Your task to perform on an android device: View the shopping cart on target. Add dell xps to the cart on target, then select checkout. Image 0: 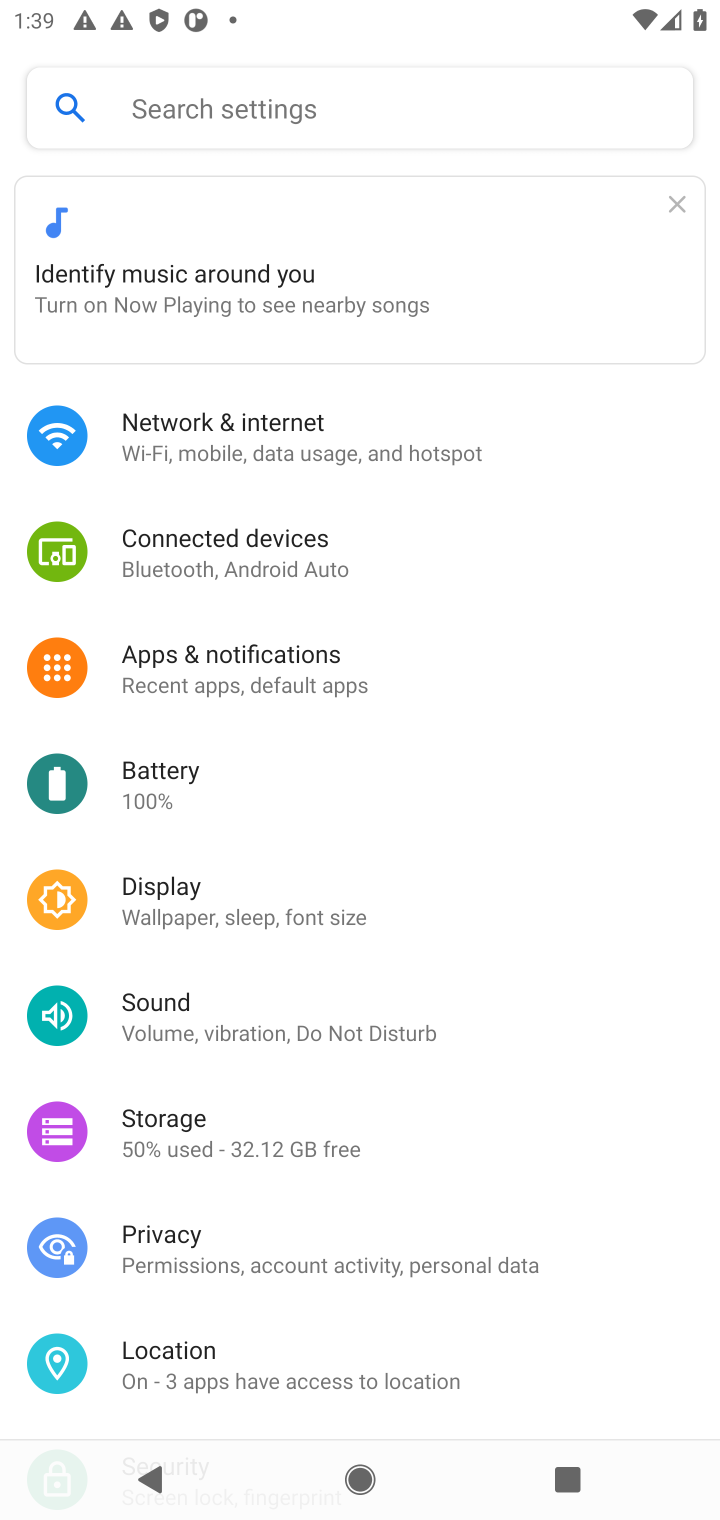
Step 0: press home button
Your task to perform on an android device: View the shopping cart on target. Add dell xps to the cart on target, then select checkout. Image 1: 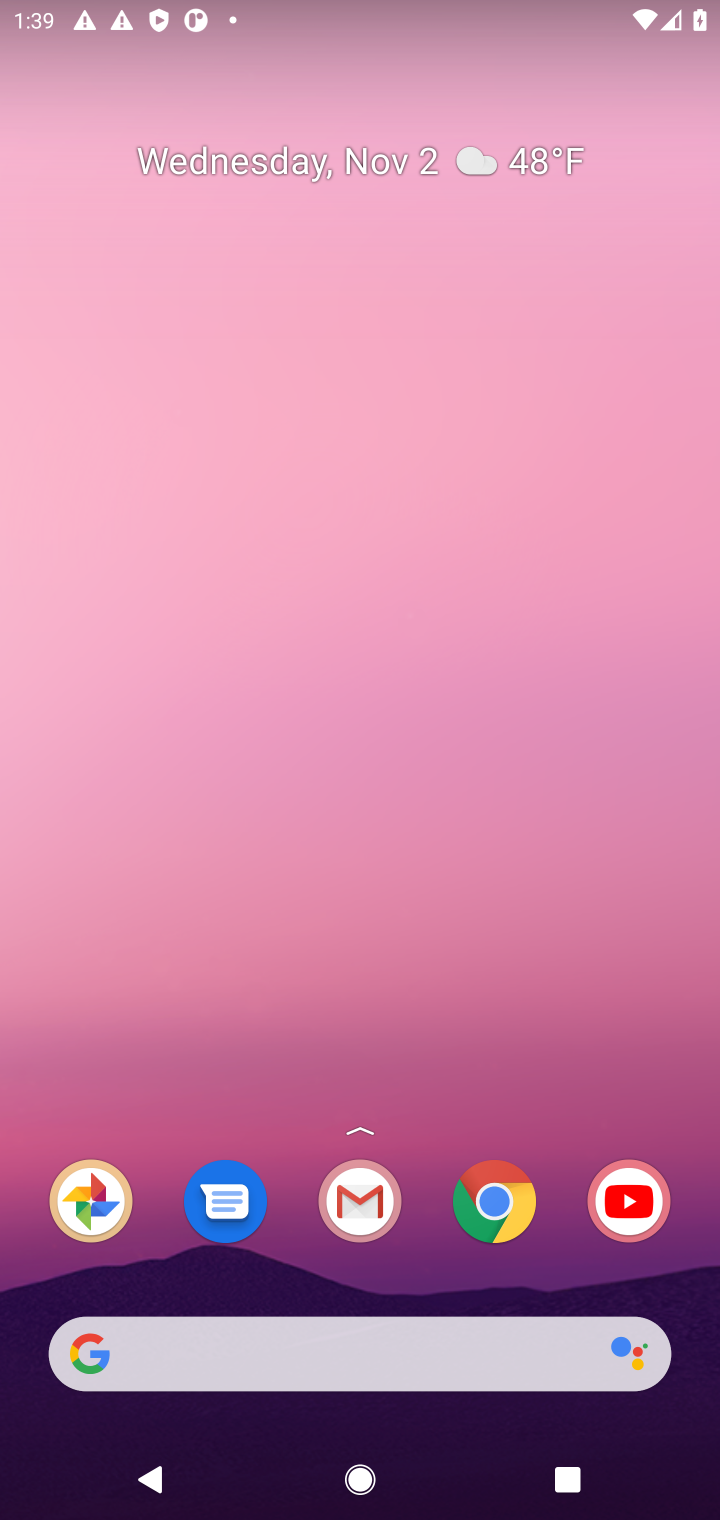
Step 1: click (496, 1197)
Your task to perform on an android device: View the shopping cart on target. Add dell xps to the cart on target, then select checkout. Image 2: 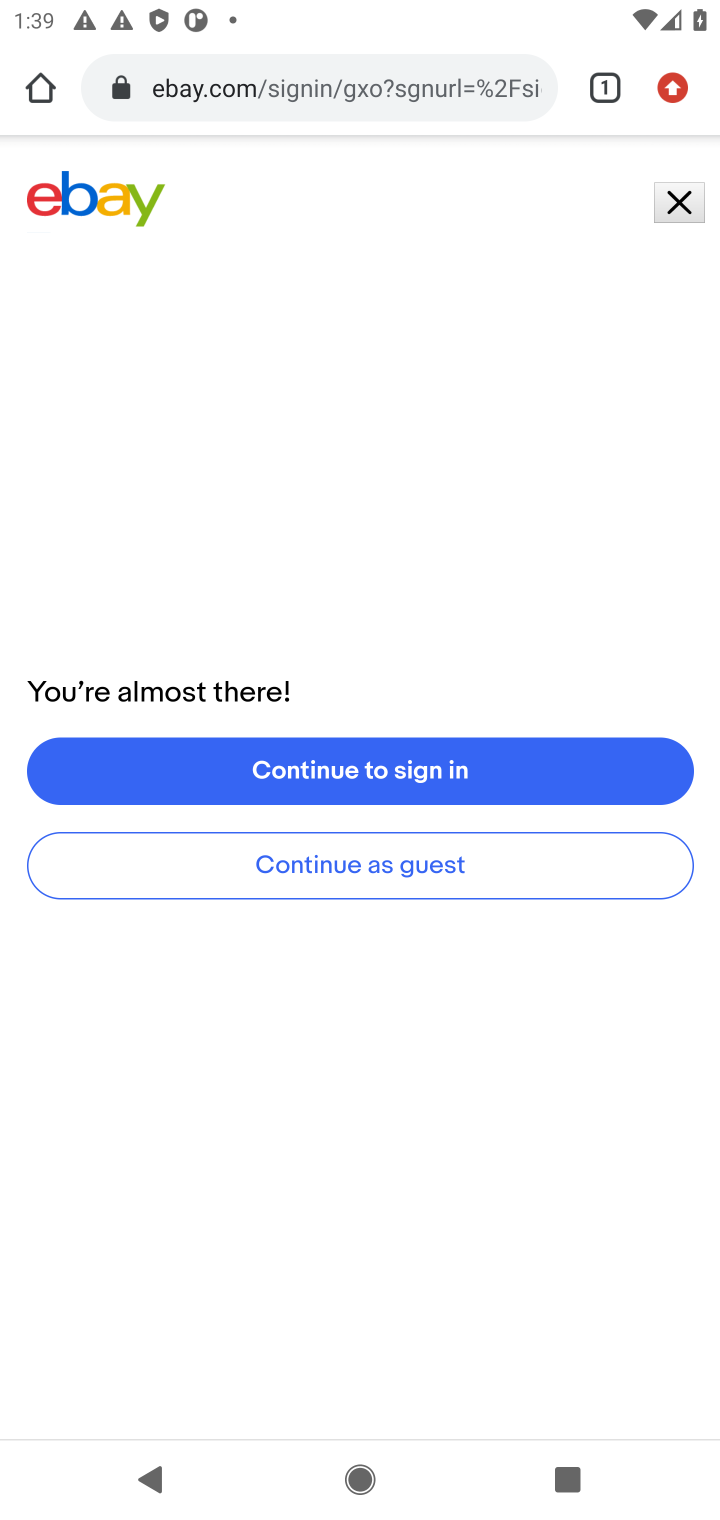
Step 2: click (444, 90)
Your task to perform on an android device: View the shopping cart on target. Add dell xps to the cart on target, then select checkout. Image 3: 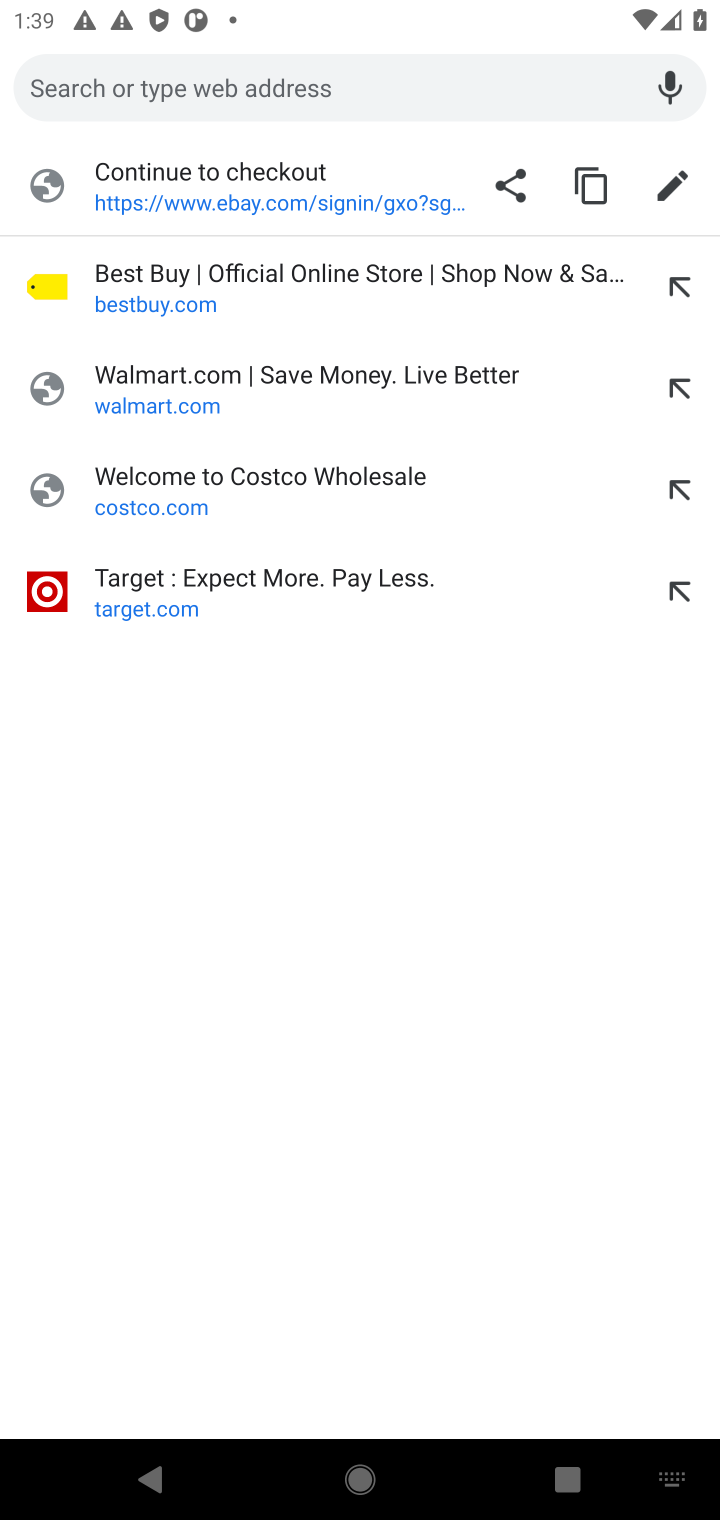
Step 3: click (276, 587)
Your task to perform on an android device: View the shopping cart on target. Add dell xps to the cart on target, then select checkout. Image 4: 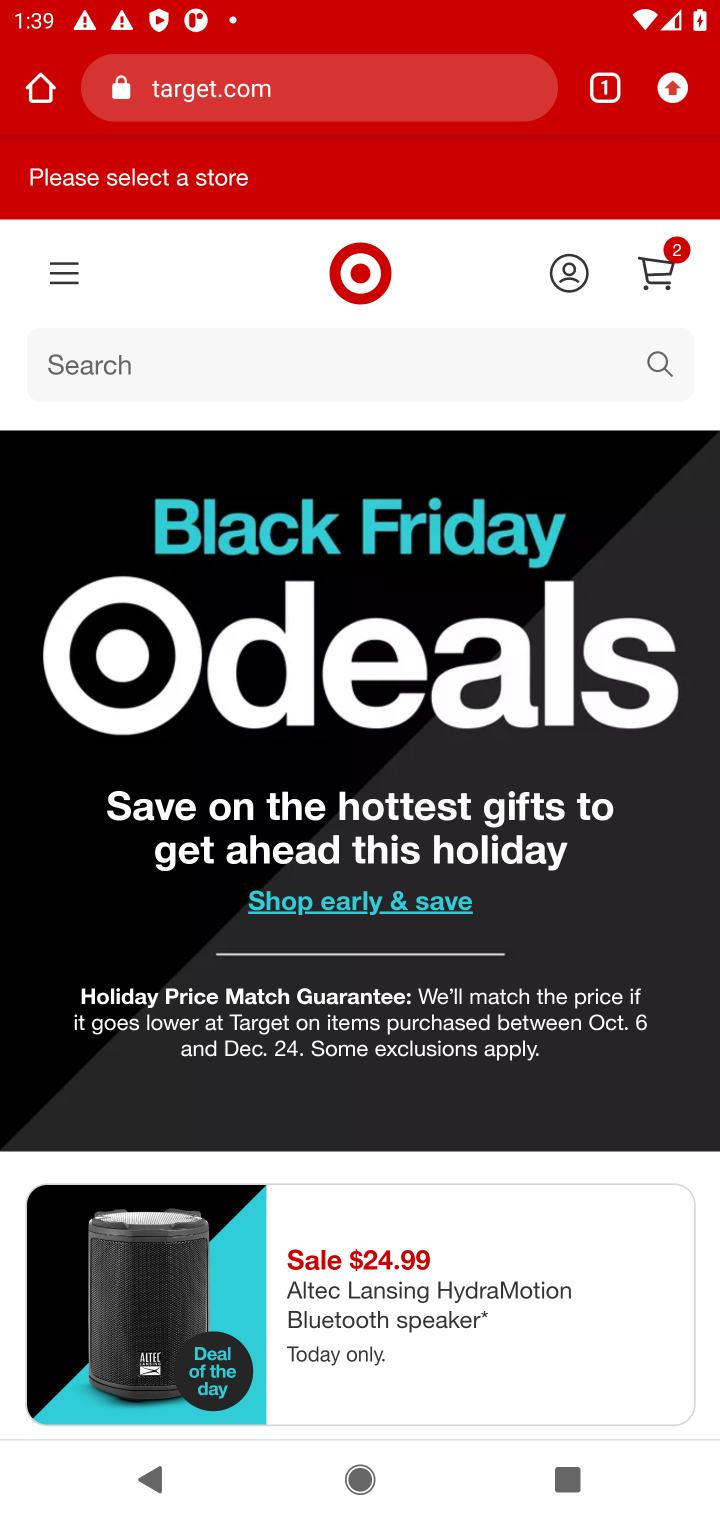
Step 4: click (652, 359)
Your task to perform on an android device: View the shopping cart on target. Add dell xps to the cart on target, then select checkout. Image 5: 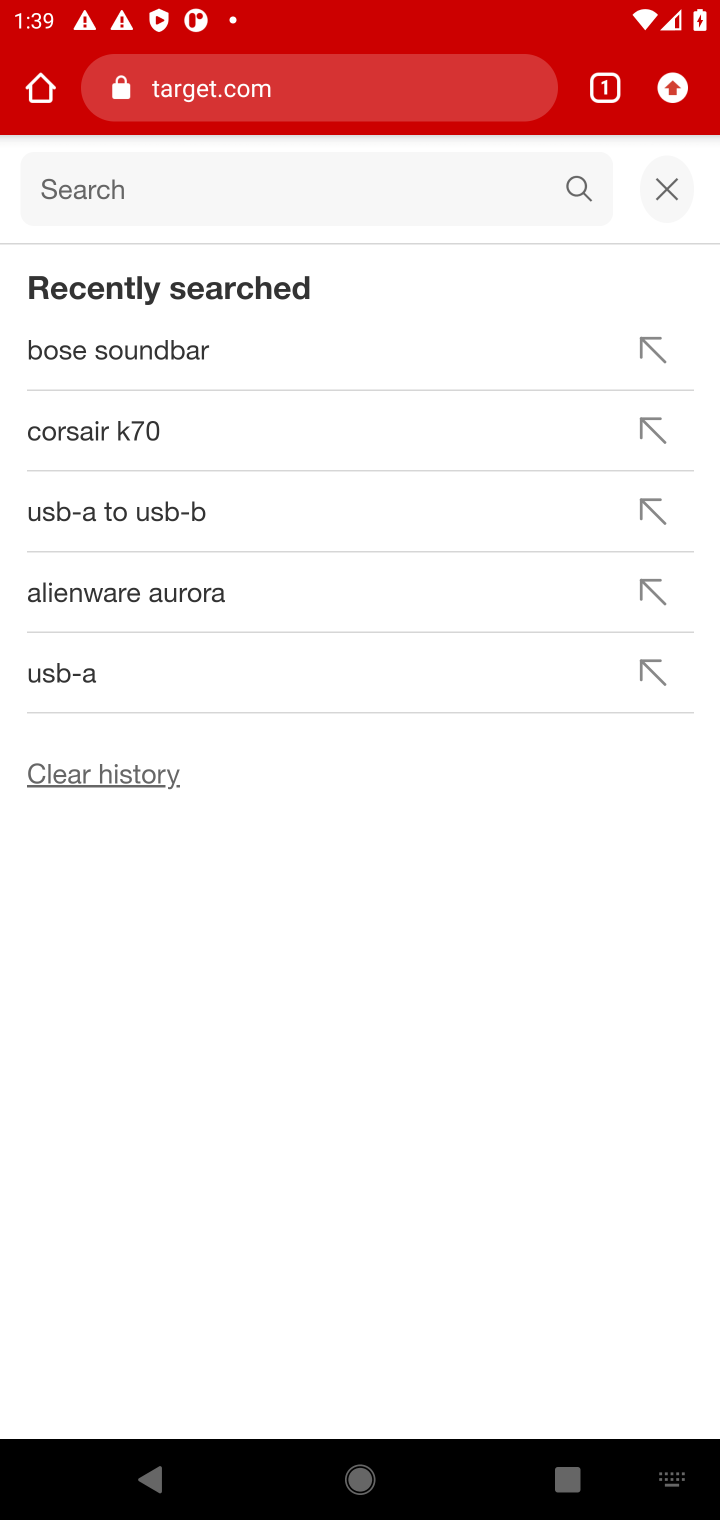
Step 5: type " dell xps"
Your task to perform on an android device: View the shopping cart on target. Add dell xps to the cart on target, then select checkout. Image 6: 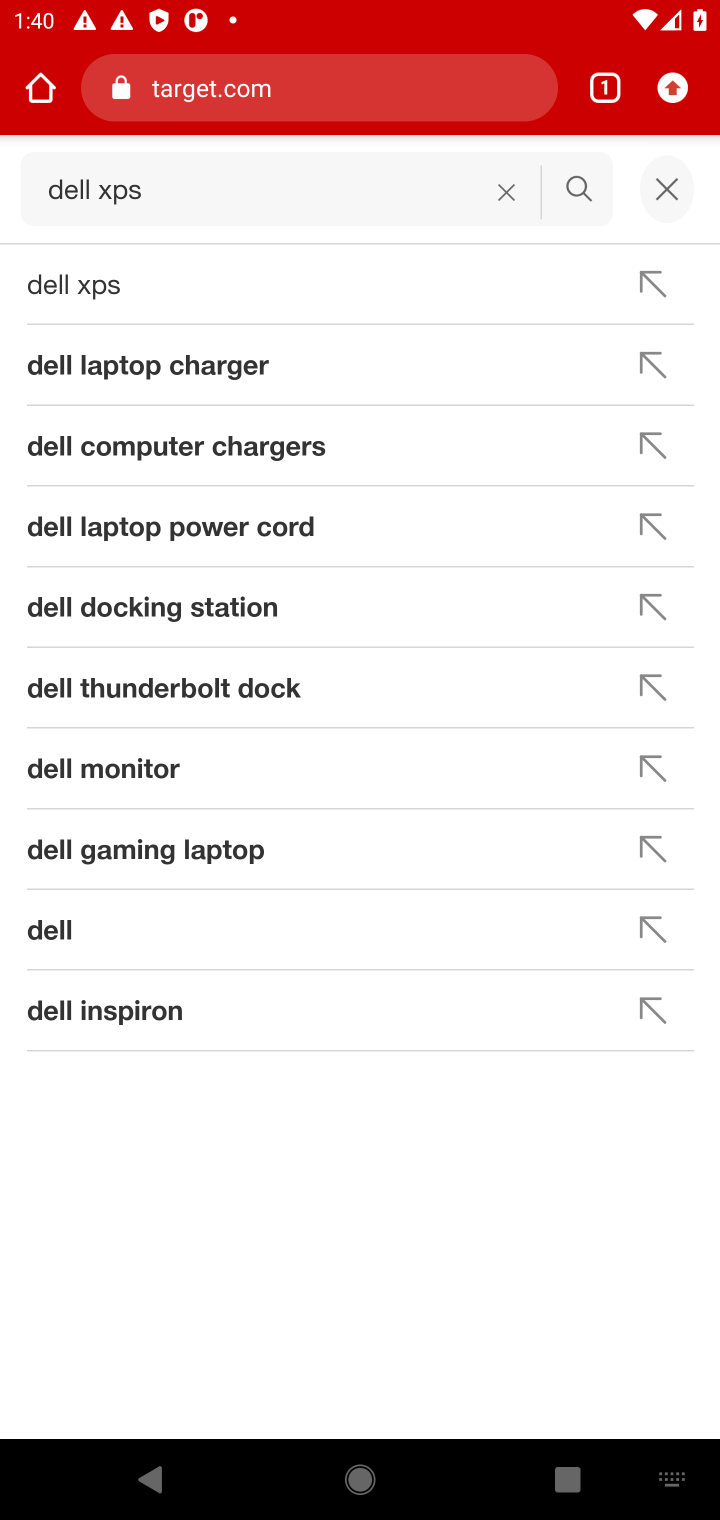
Step 6: click (94, 280)
Your task to perform on an android device: View the shopping cart on target. Add dell xps to the cart on target, then select checkout. Image 7: 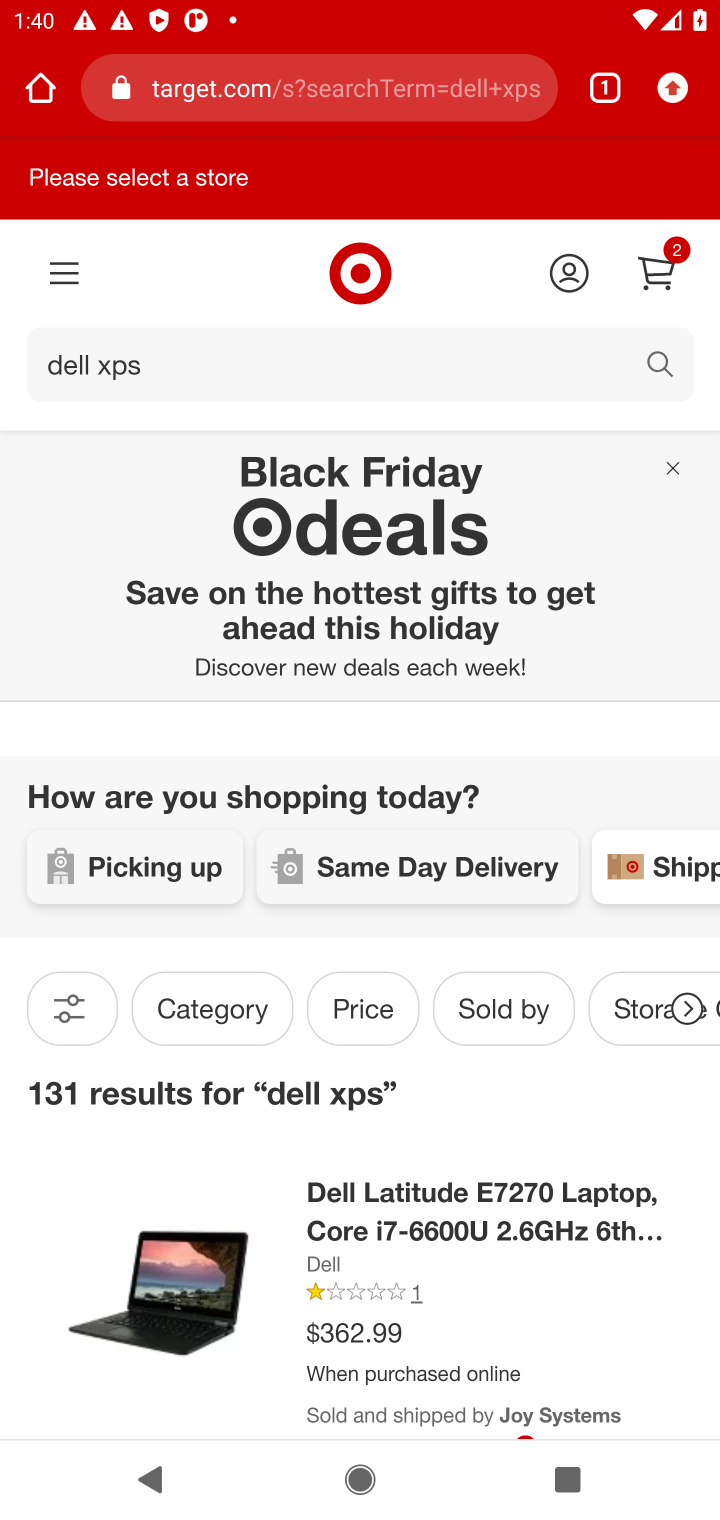
Step 7: drag from (592, 1315) to (614, 889)
Your task to perform on an android device: View the shopping cart on target. Add dell xps to the cart on target, then select checkout. Image 8: 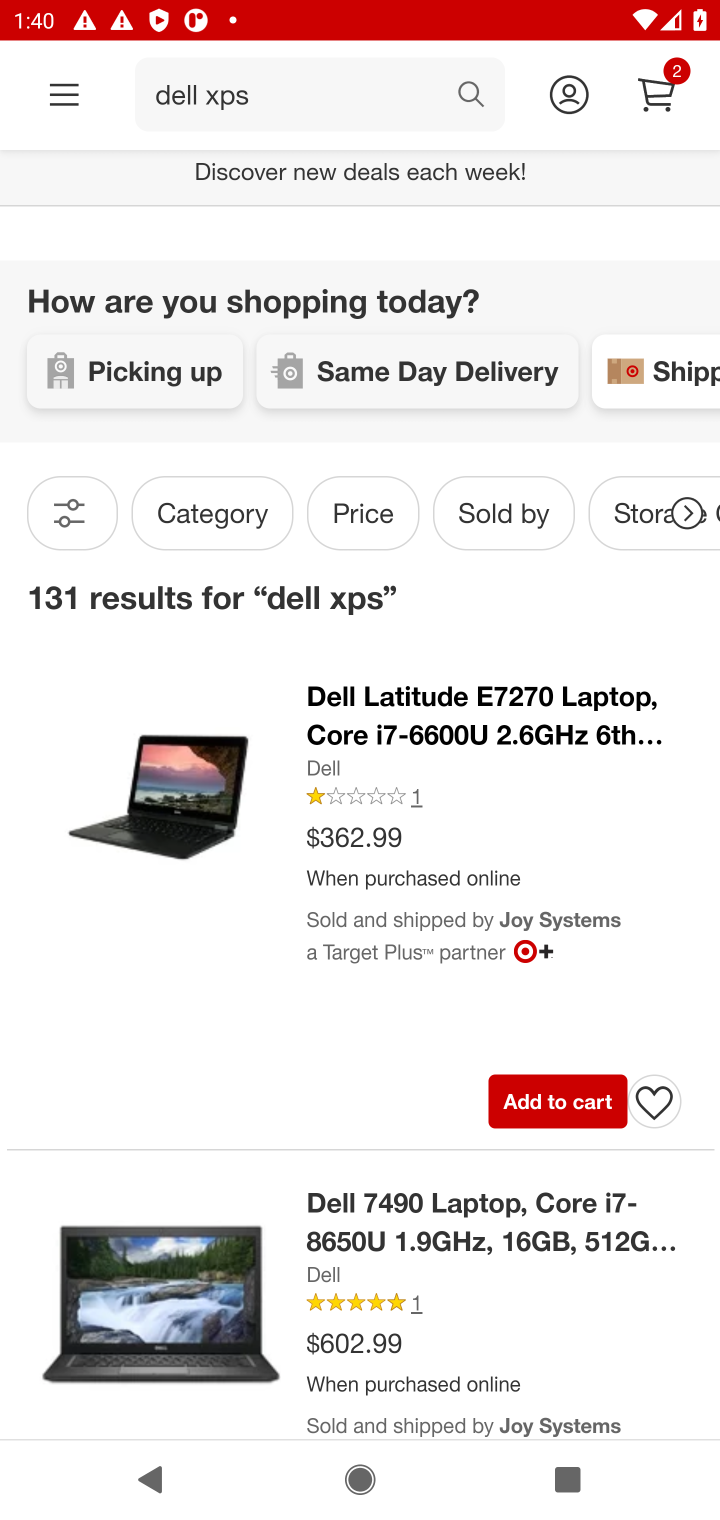
Step 8: drag from (552, 1306) to (567, 925)
Your task to perform on an android device: View the shopping cart on target. Add dell xps to the cart on target, then select checkout. Image 9: 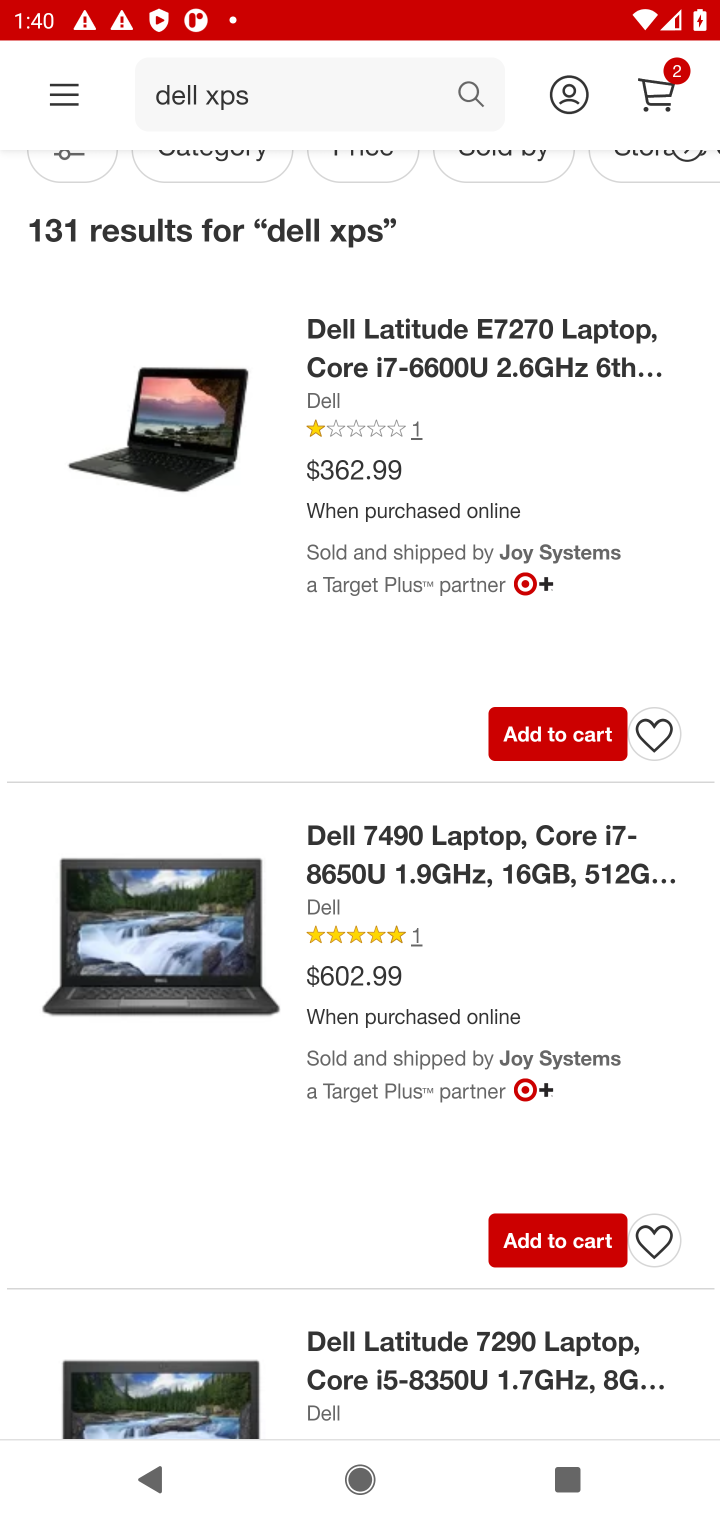
Step 9: drag from (526, 1396) to (577, 974)
Your task to perform on an android device: View the shopping cart on target. Add dell xps to the cart on target, then select checkout. Image 10: 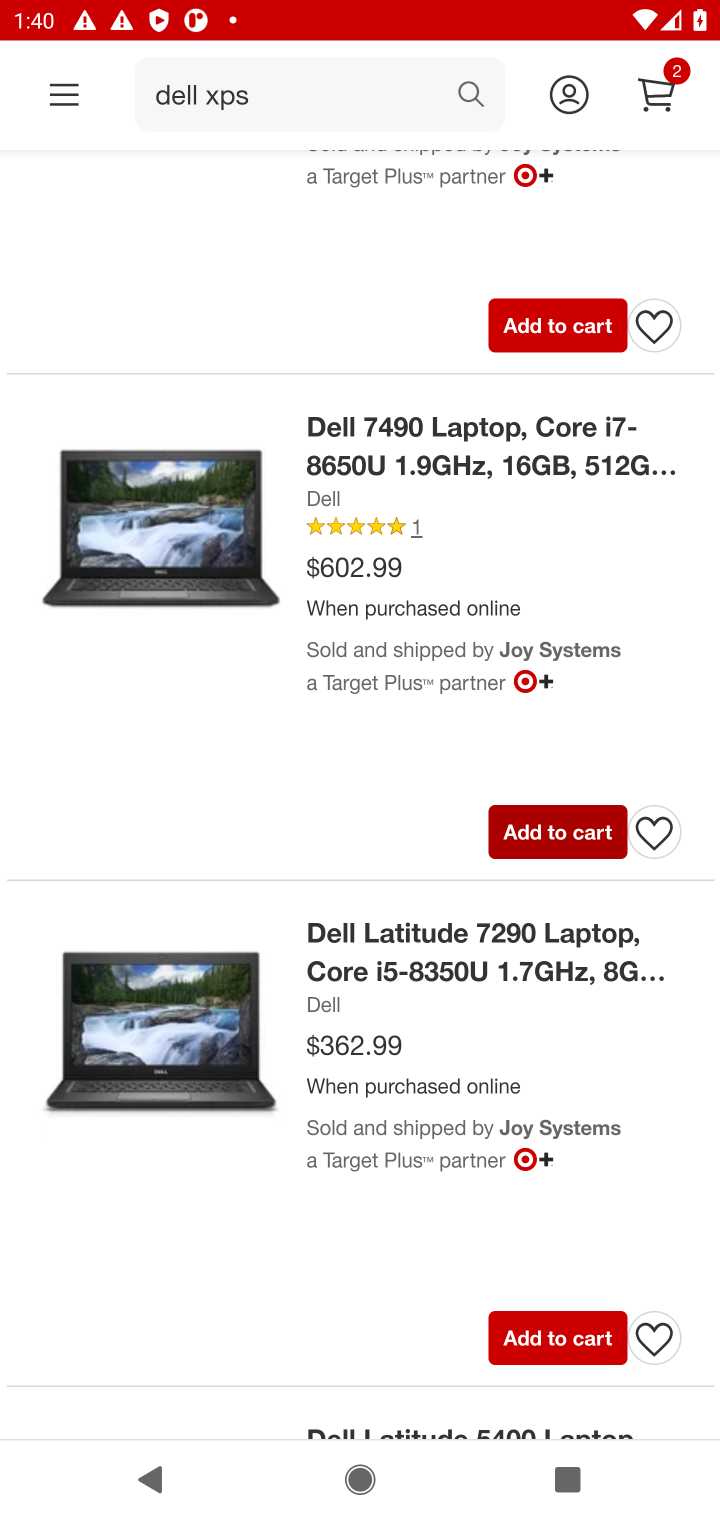
Step 10: drag from (475, 1400) to (504, 885)
Your task to perform on an android device: View the shopping cart on target. Add dell xps to the cart on target, then select checkout. Image 11: 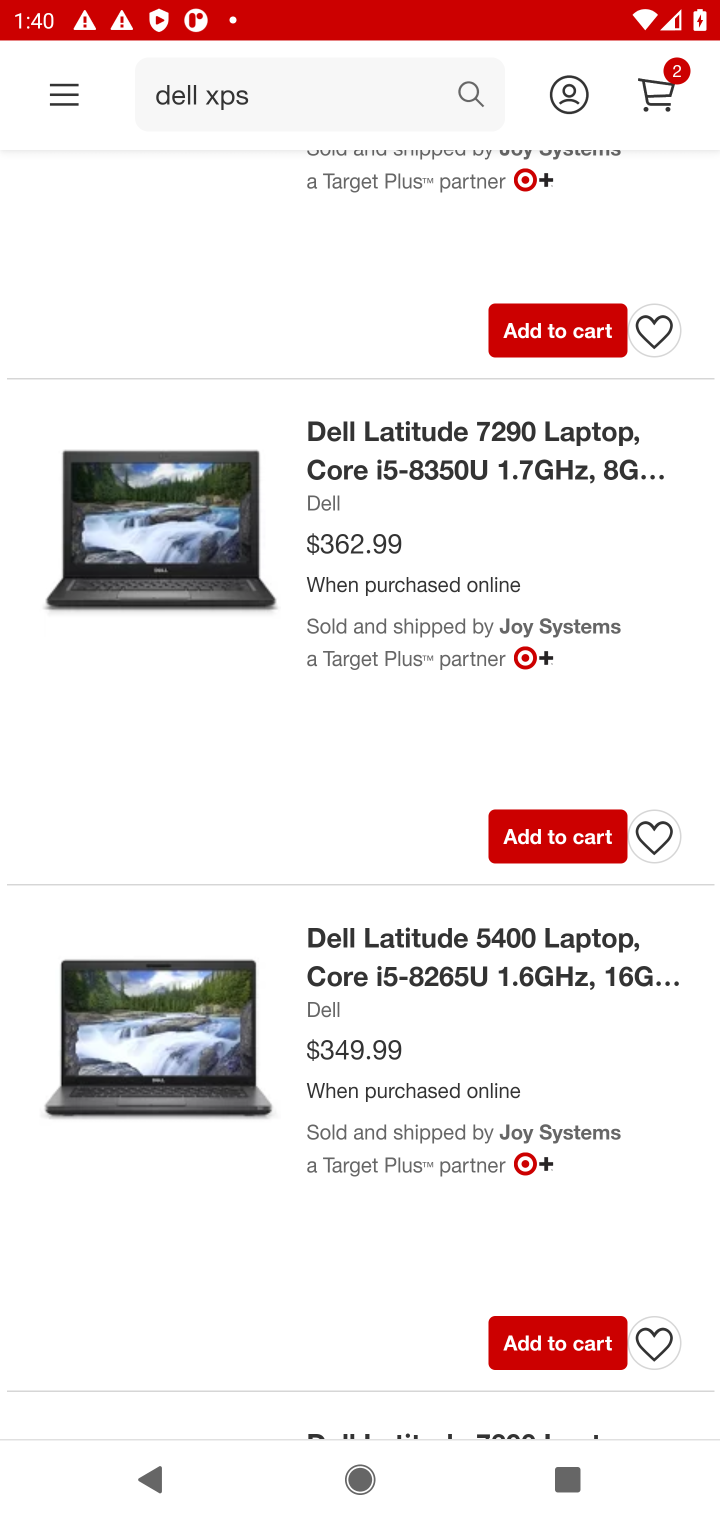
Step 11: drag from (349, 445) to (347, 1082)
Your task to perform on an android device: View the shopping cart on target. Add dell xps to the cart on target, then select checkout. Image 12: 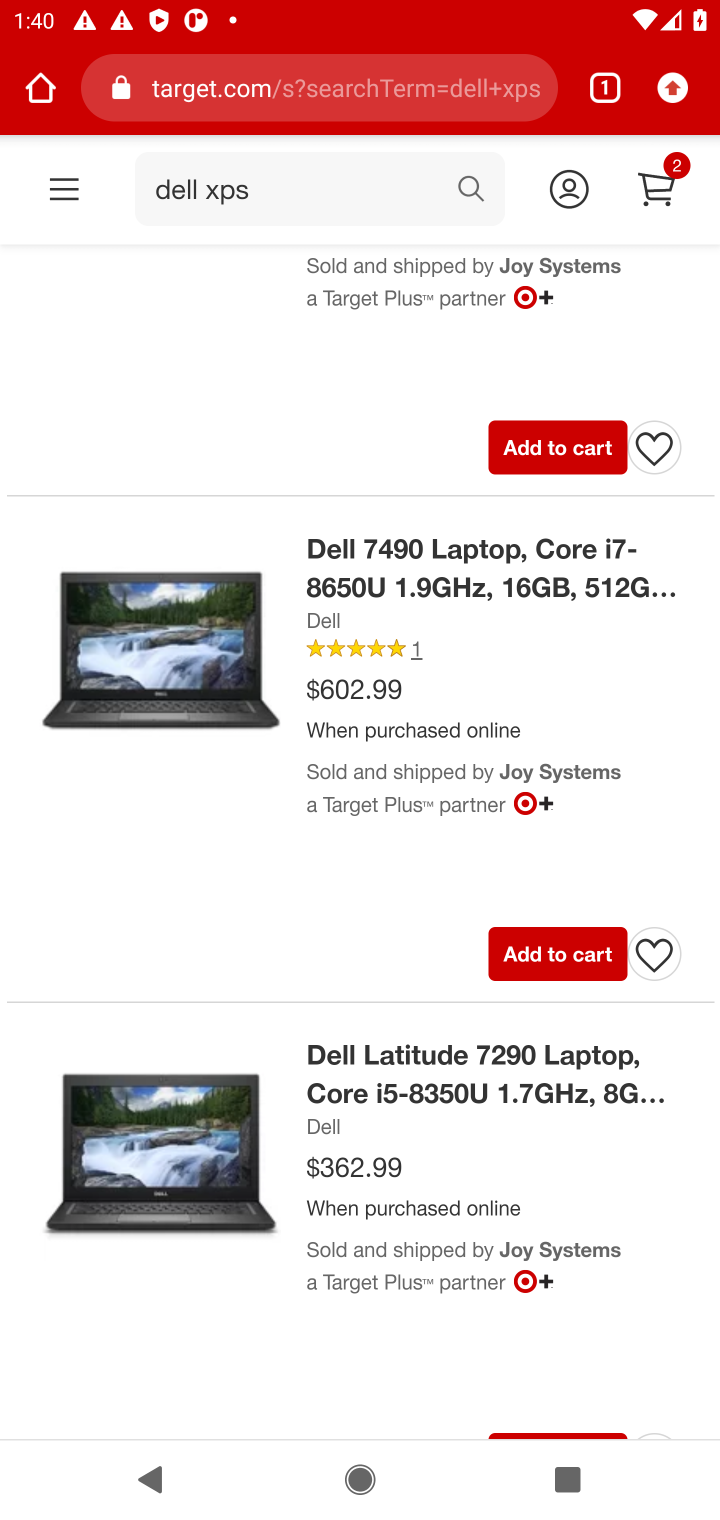
Step 12: drag from (296, 589) to (373, 1115)
Your task to perform on an android device: View the shopping cart on target. Add dell xps to the cart on target, then select checkout. Image 13: 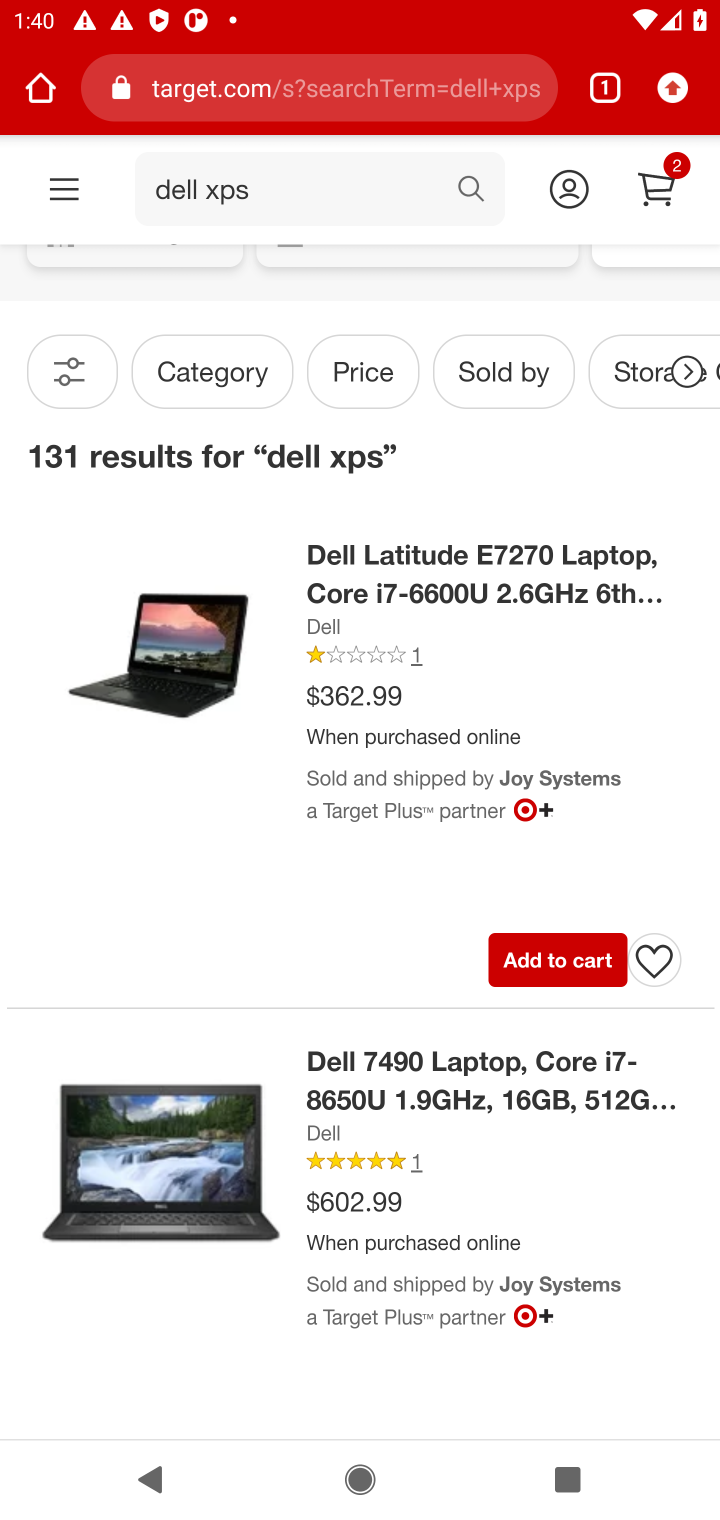
Step 13: click (136, 698)
Your task to perform on an android device: View the shopping cart on target. Add dell xps to the cart on target, then select checkout. Image 14: 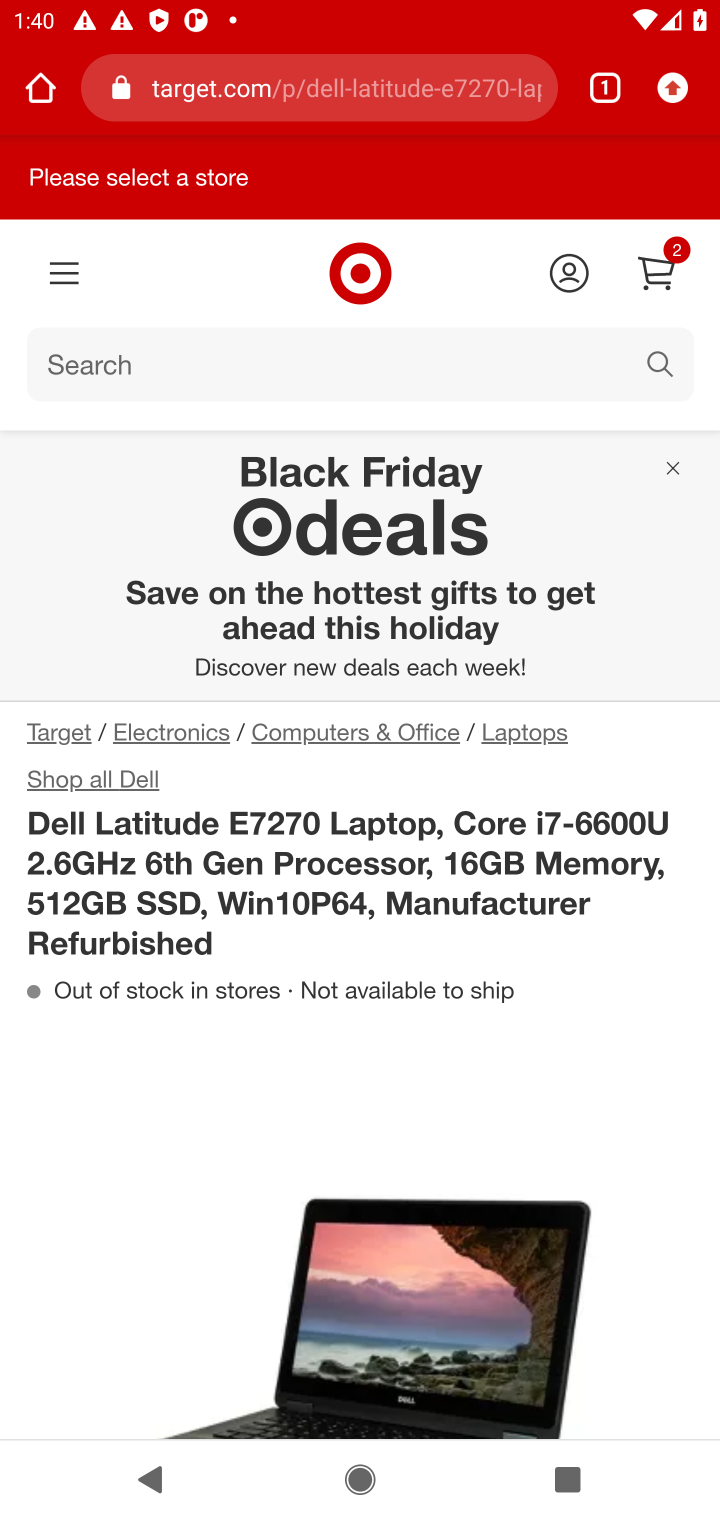
Step 14: drag from (580, 1207) to (547, 468)
Your task to perform on an android device: View the shopping cart on target. Add dell xps to the cart on target, then select checkout. Image 15: 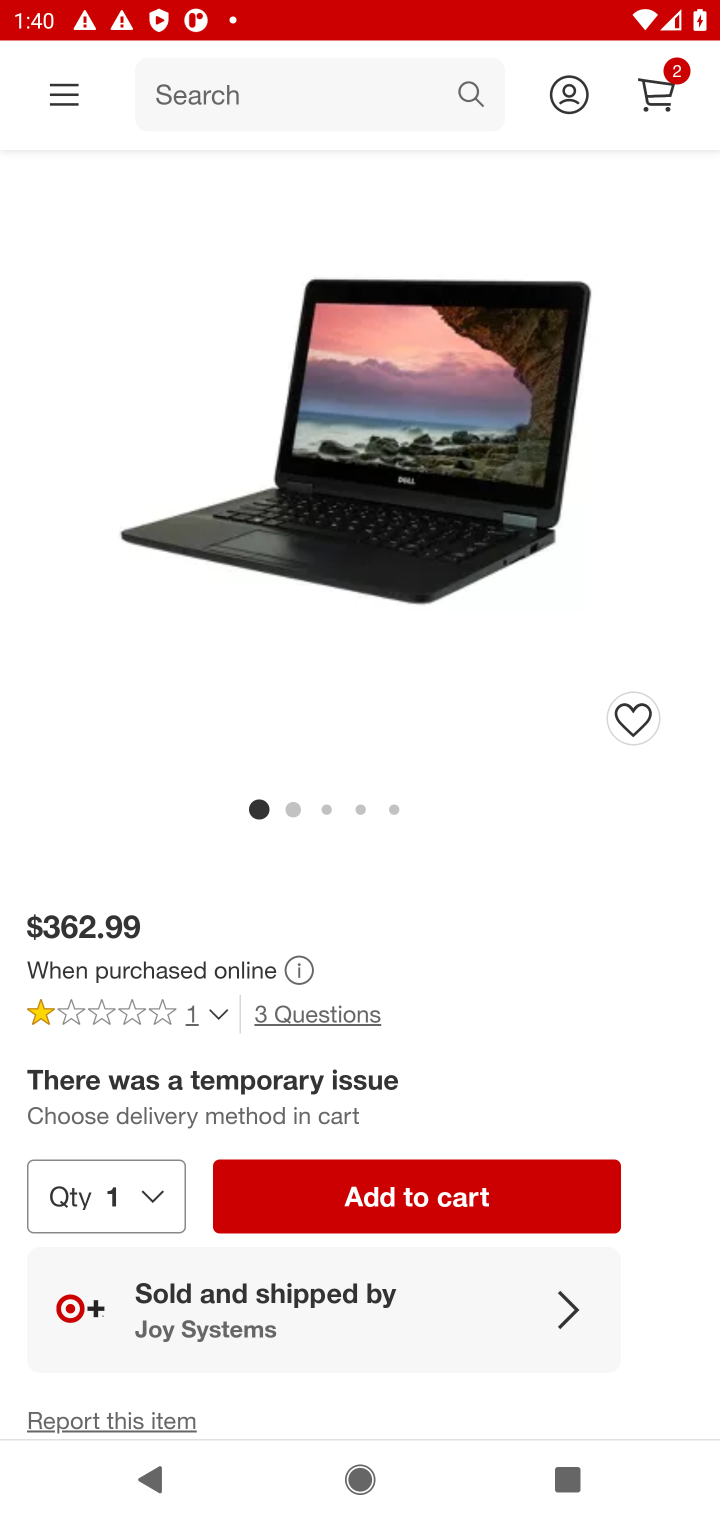
Step 15: click (454, 1199)
Your task to perform on an android device: View the shopping cart on target. Add dell xps to the cart on target, then select checkout. Image 16: 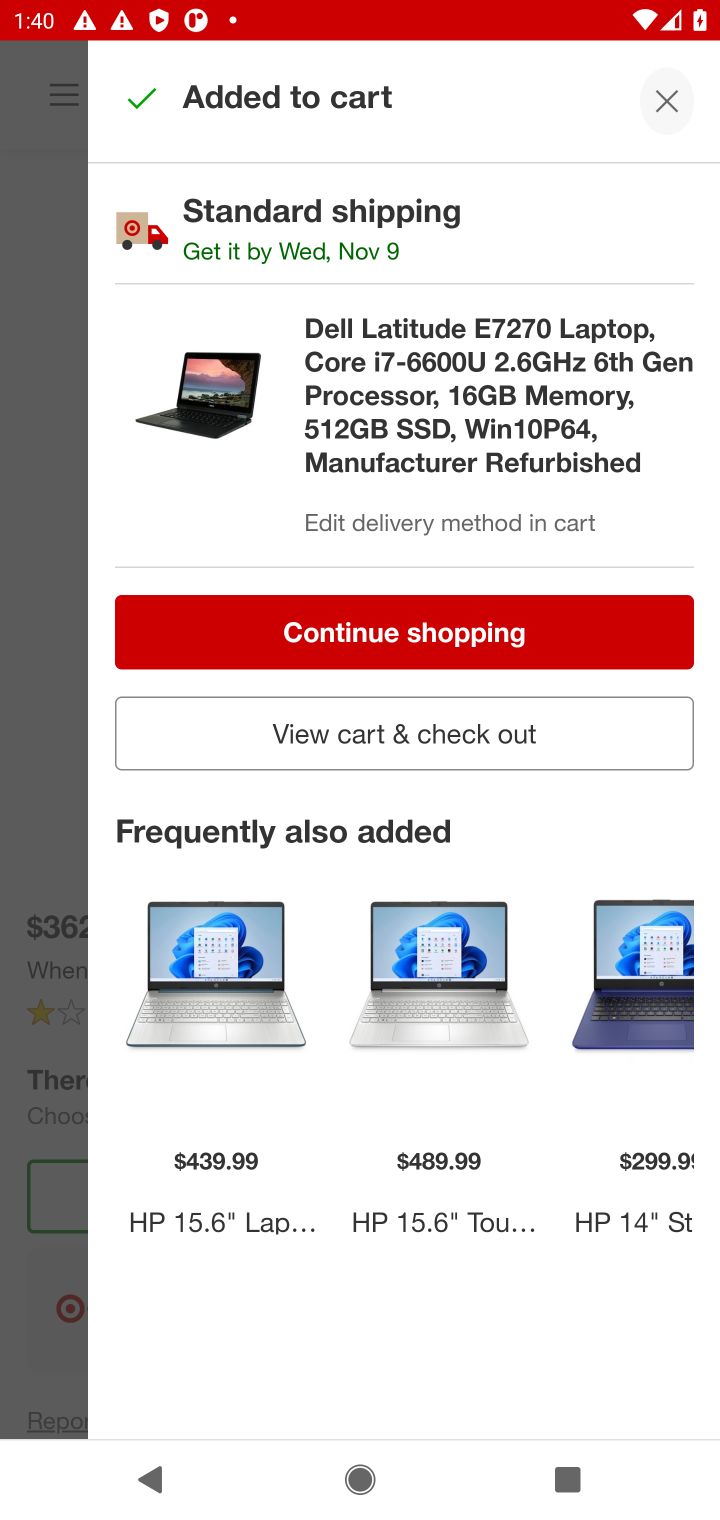
Step 16: click (433, 723)
Your task to perform on an android device: View the shopping cart on target. Add dell xps to the cart on target, then select checkout. Image 17: 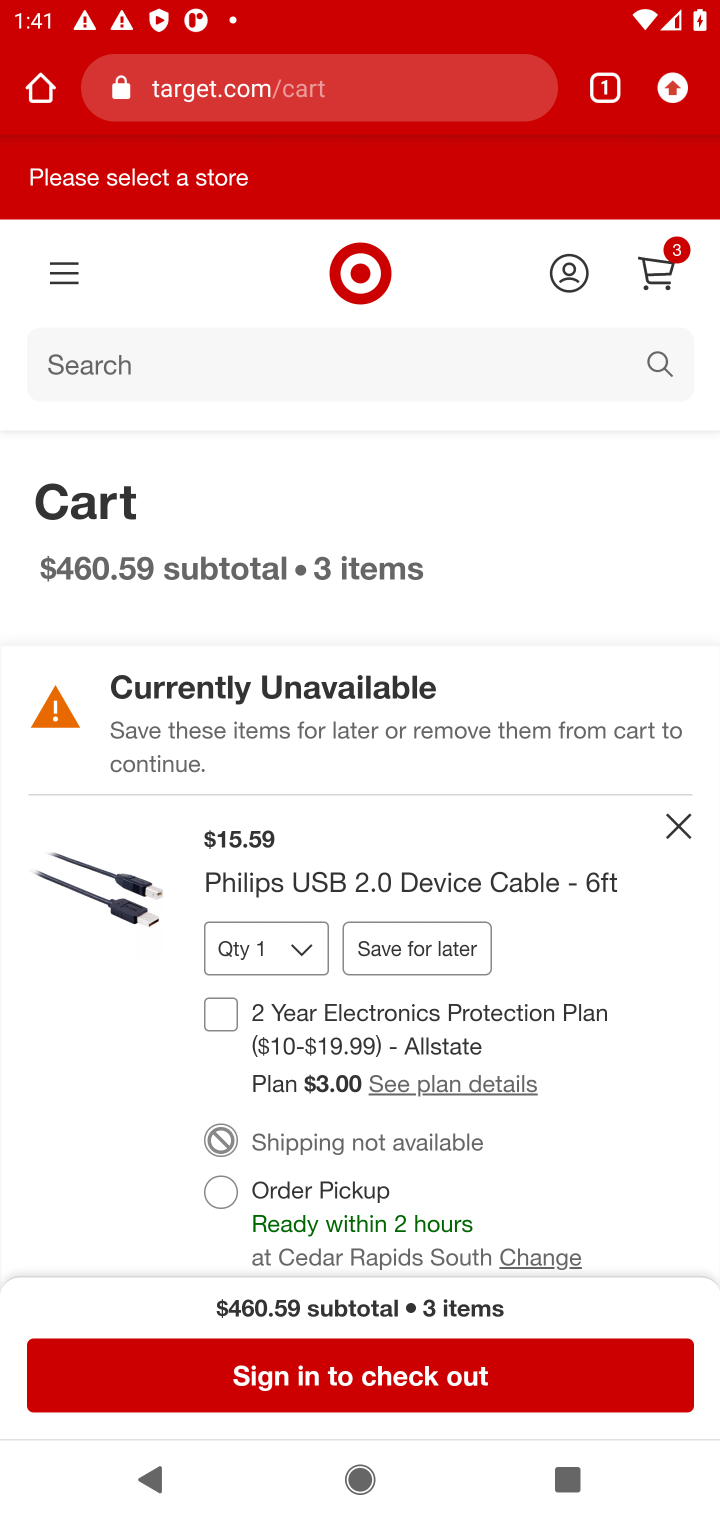
Step 17: click (467, 1374)
Your task to perform on an android device: View the shopping cart on target. Add dell xps to the cart on target, then select checkout. Image 18: 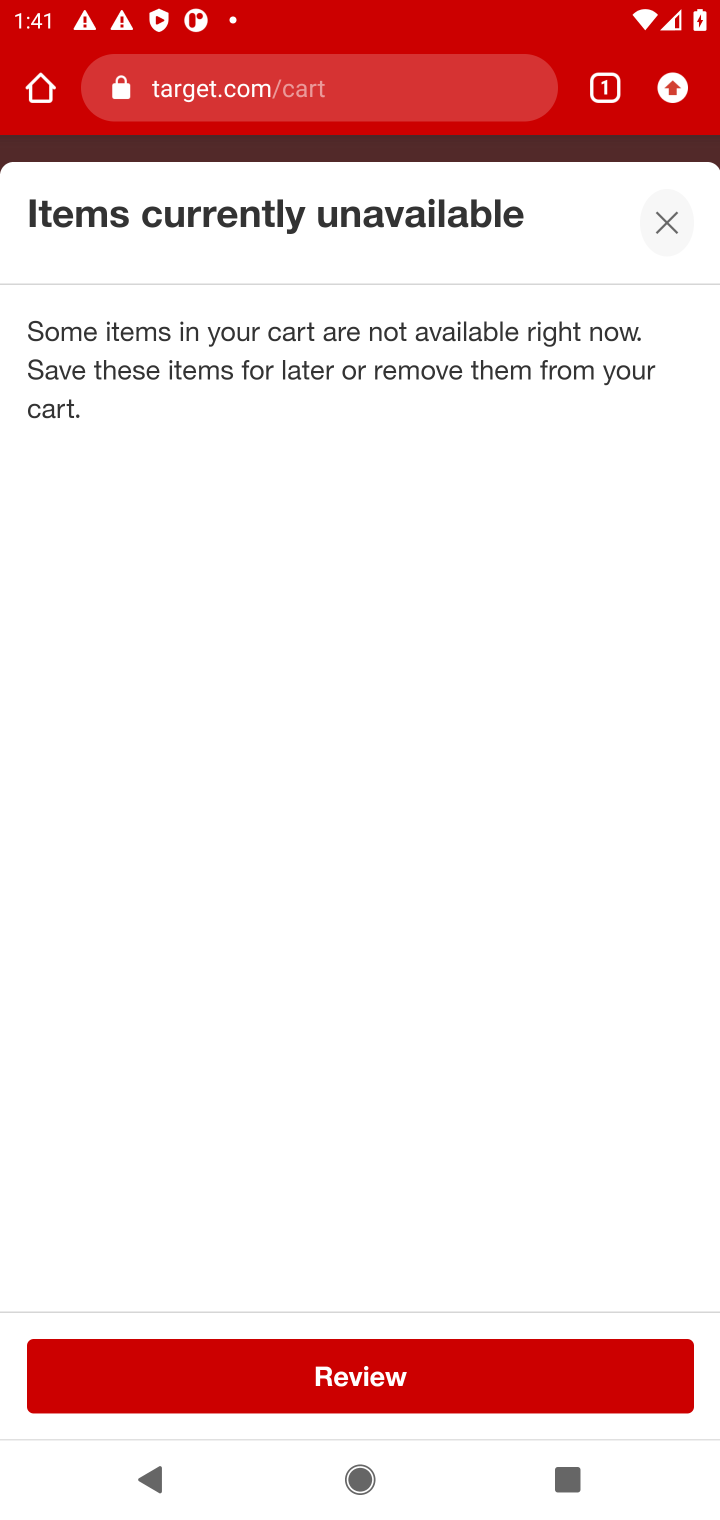
Step 18: task complete